Your task to perform on an android device: Open Maps and search for coffee Image 0: 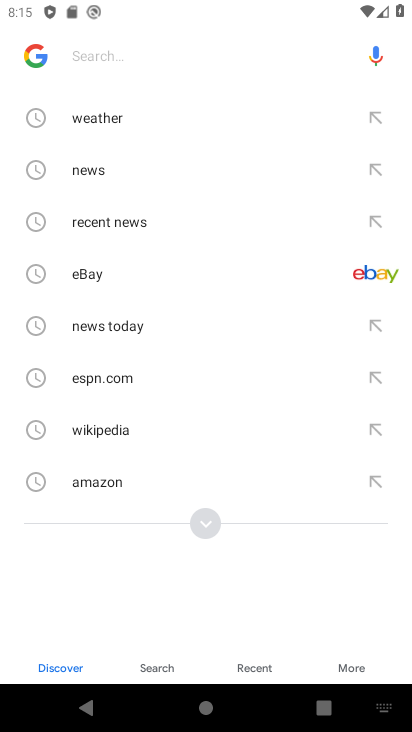
Step 0: press home button
Your task to perform on an android device: Open Maps and search for coffee Image 1: 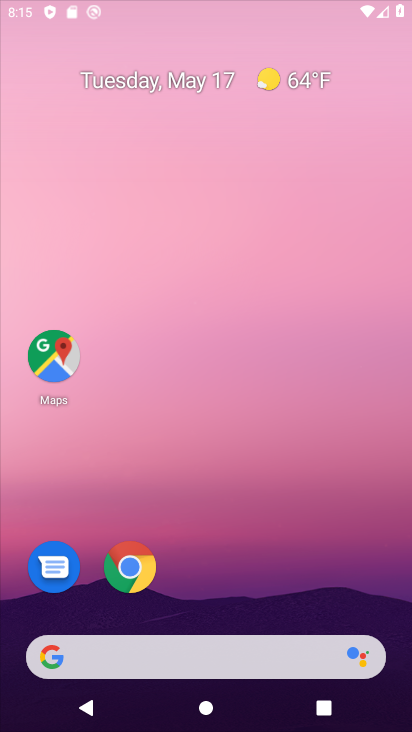
Step 1: drag from (364, 603) to (242, 69)
Your task to perform on an android device: Open Maps and search for coffee Image 2: 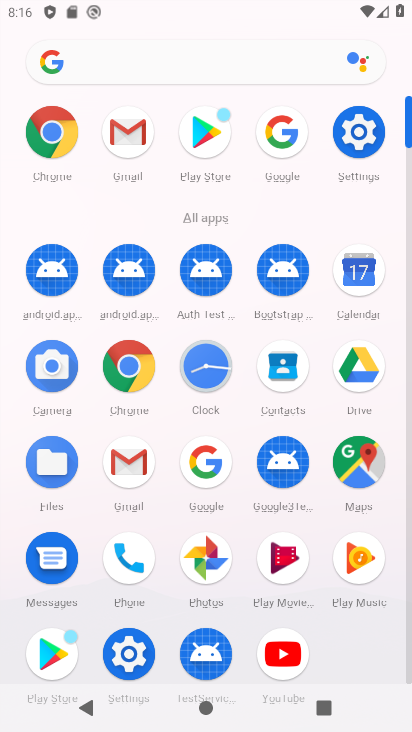
Step 2: click (356, 458)
Your task to perform on an android device: Open Maps and search for coffee Image 3: 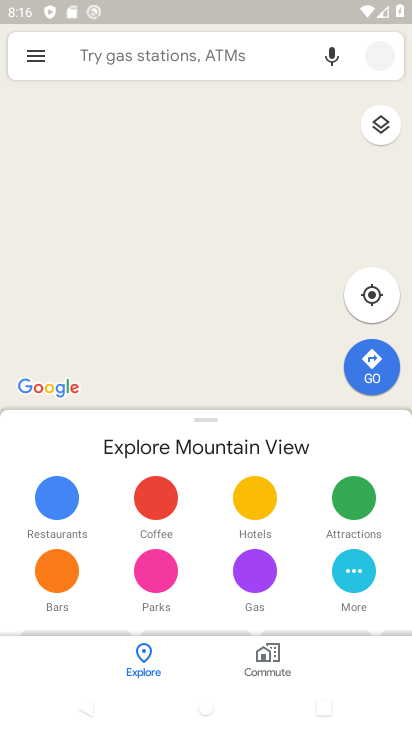
Step 3: click (142, 38)
Your task to perform on an android device: Open Maps and search for coffee Image 4: 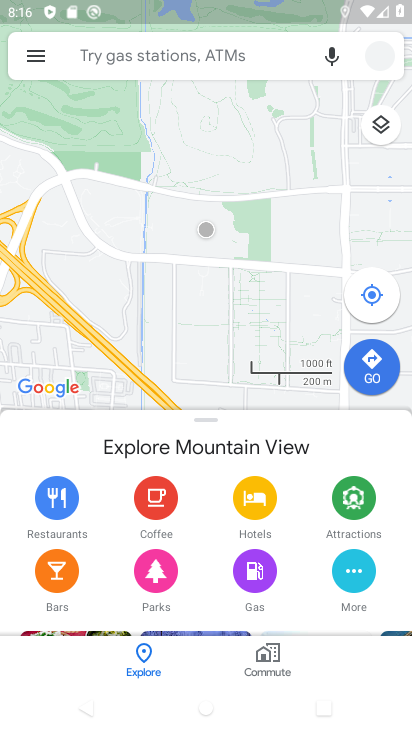
Step 4: click (158, 55)
Your task to perform on an android device: Open Maps and search for coffee Image 5: 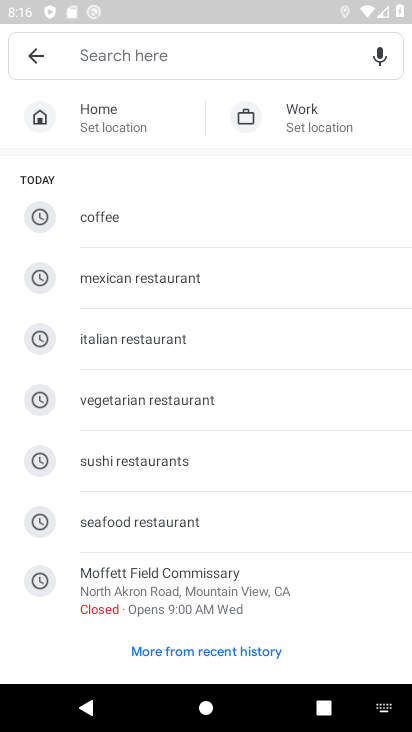
Step 5: click (138, 219)
Your task to perform on an android device: Open Maps and search for coffee Image 6: 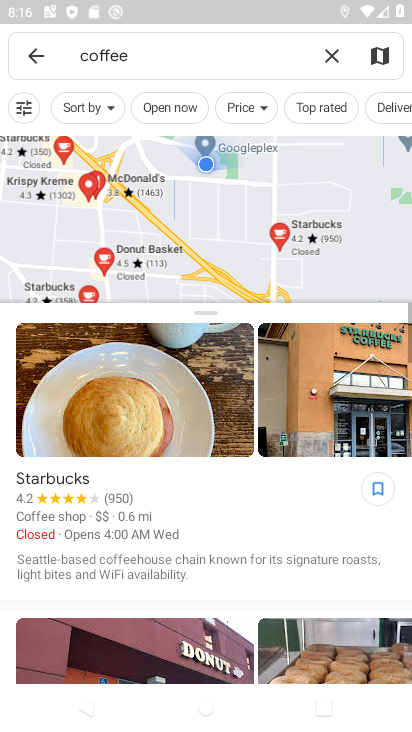
Step 6: task complete